Your task to perform on an android device: star an email in the gmail app Image 0: 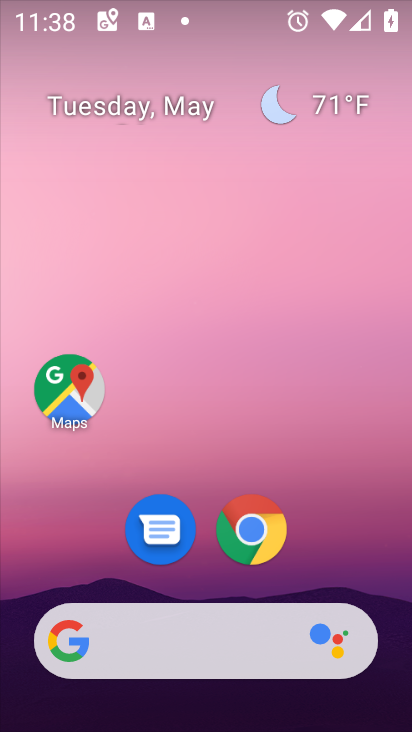
Step 0: drag from (248, 639) to (296, 254)
Your task to perform on an android device: star an email in the gmail app Image 1: 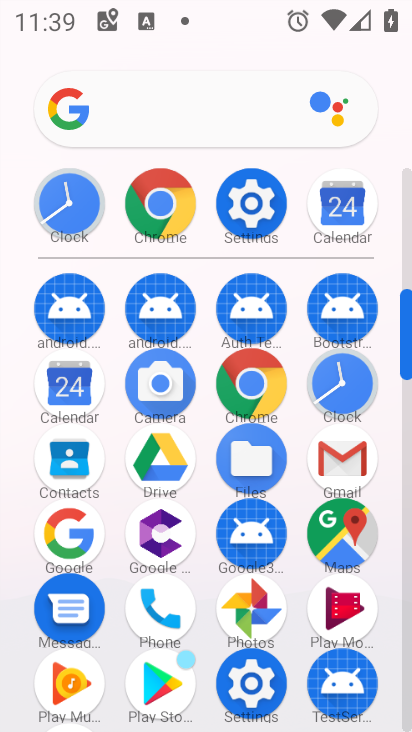
Step 1: click (349, 462)
Your task to perform on an android device: star an email in the gmail app Image 2: 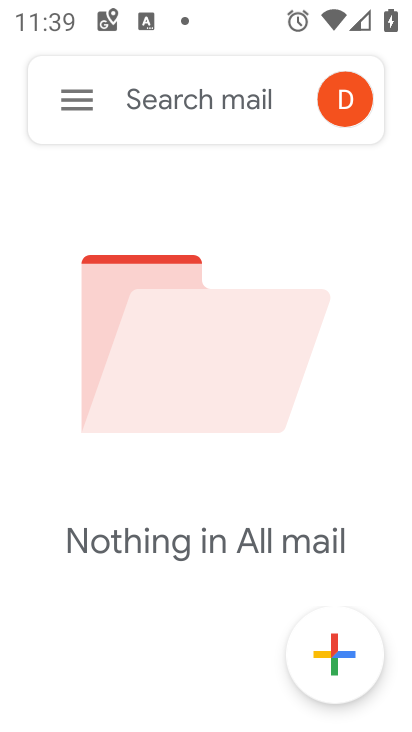
Step 2: click (85, 111)
Your task to perform on an android device: star an email in the gmail app Image 3: 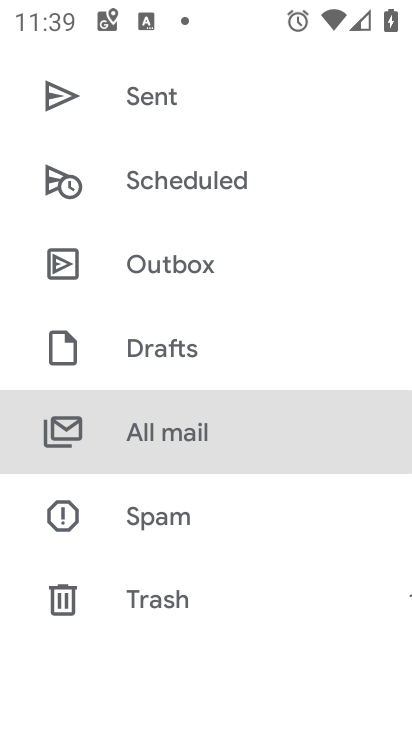
Step 3: click (257, 438)
Your task to perform on an android device: star an email in the gmail app Image 4: 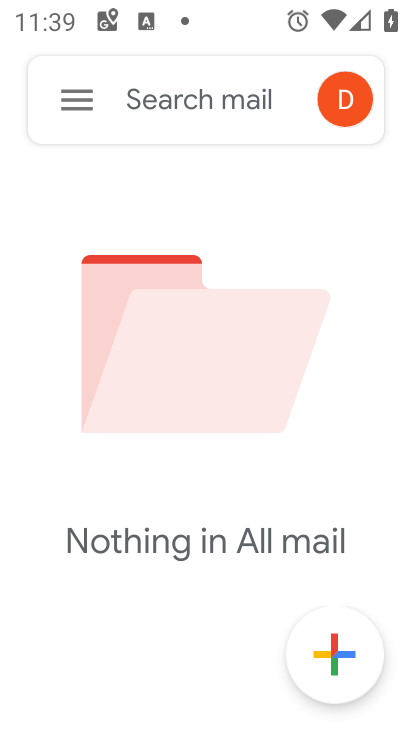
Step 4: task complete